Your task to perform on an android device: turn on data saver in the chrome app Image 0: 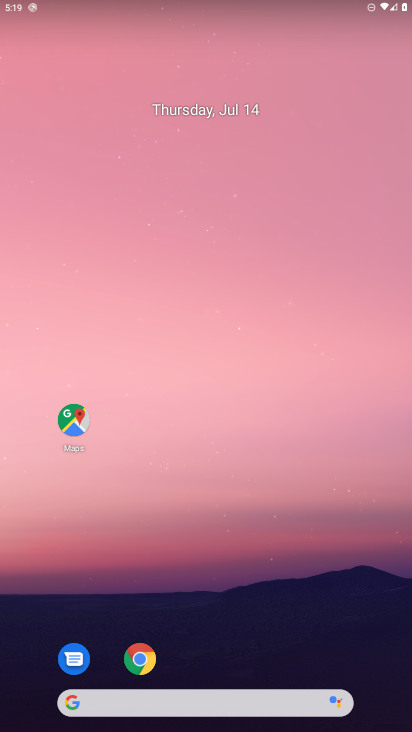
Step 0: click (147, 656)
Your task to perform on an android device: turn on data saver in the chrome app Image 1: 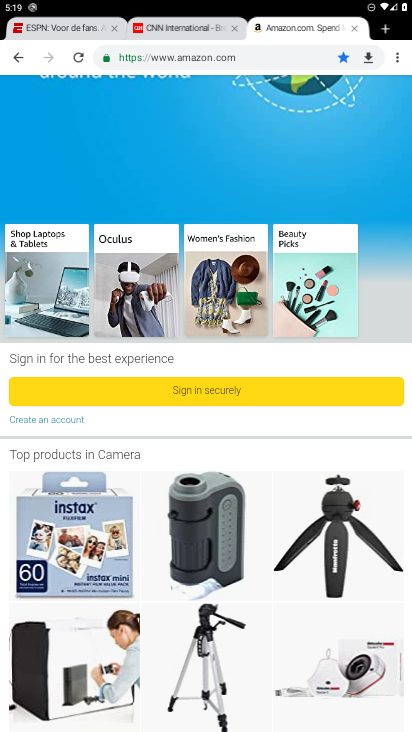
Step 1: click (396, 56)
Your task to perform on an android device: turn on data saver in the chrome app Image 2: 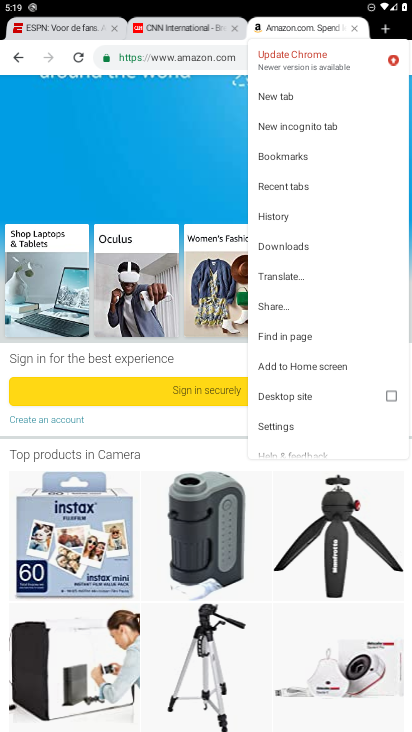
Step 2: click (302, 420)
Your task to perform on an android device: turn on data saver in the chrome app Image 3: 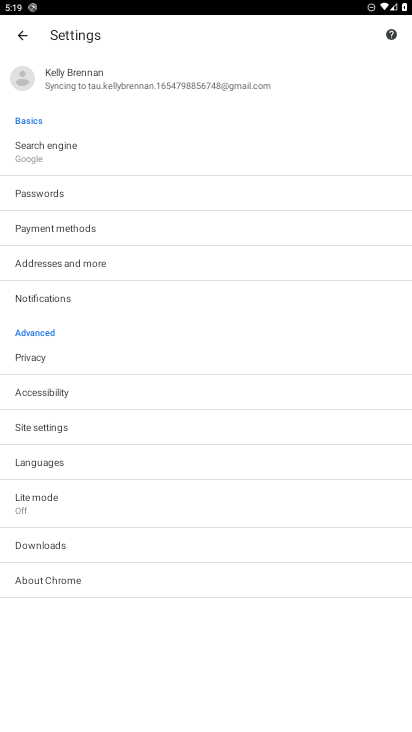
Step 3: click (59, 503)
Your task to perform on an android device: turn on data saver in the chrome app Image 4: 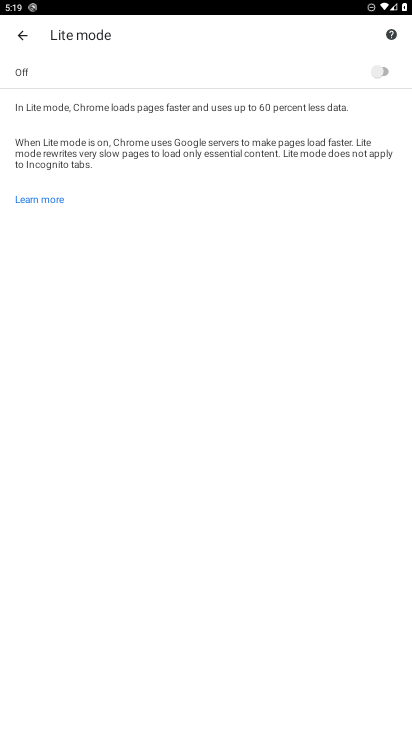
Step 4: click (383, 69)
Your task to perform on an android device: turn on data saver in the chrome app Image 5: 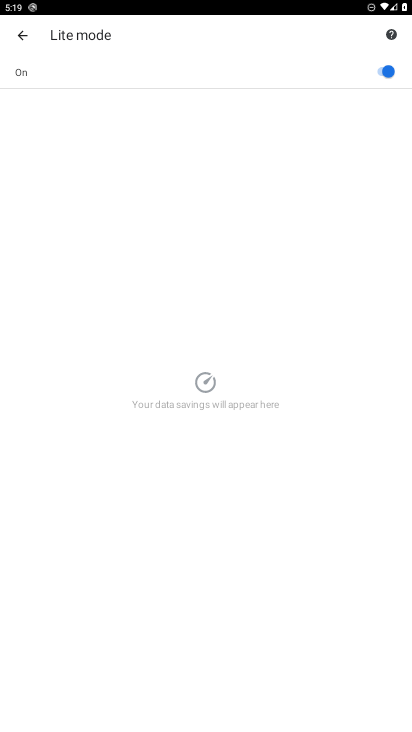
Step 5: task complete